Your task to perform on an android device: change the clock display to digital Image 0: 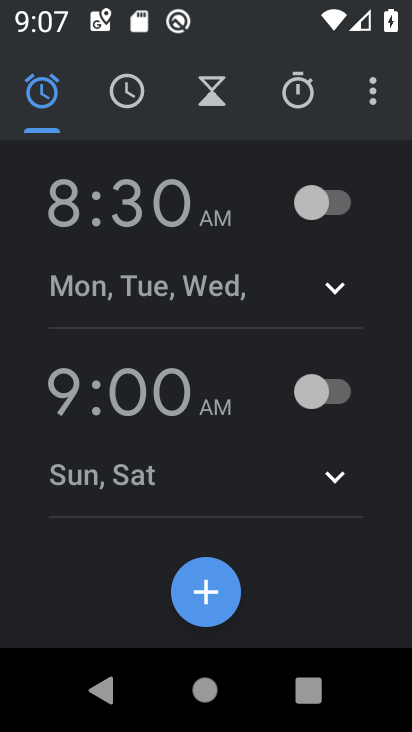
Step 0: click (367, 88)
Your task to perform on an android device: change the clock display to digital Image 1: 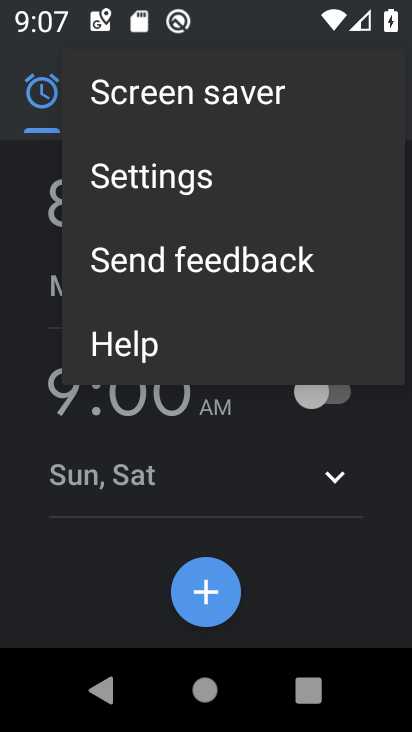
Step 1: click (230, 179)
Your task to perform on an android device: change the clock display to digital Image 2: 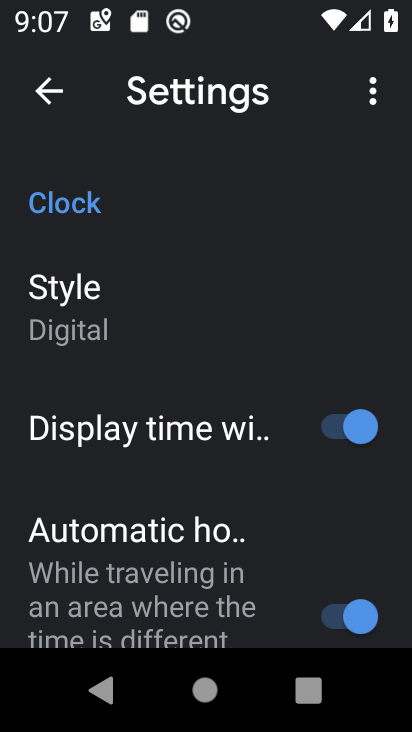
Step 2: click (162, 314)
Your task to perform on an android device: change the clock display to digital Image 3: 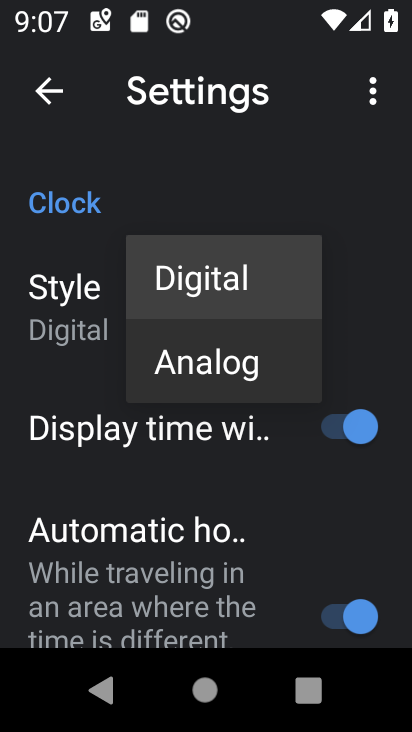
Step 3: click (198, 292)
Your task to perform on an android device: change the clock display to digital Image 4: 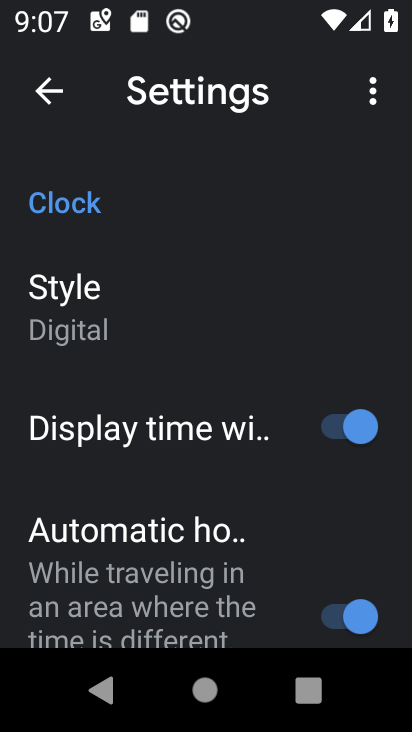
Step 4: task complete